Your task to perform on an android device: turn on wifi Image 0: 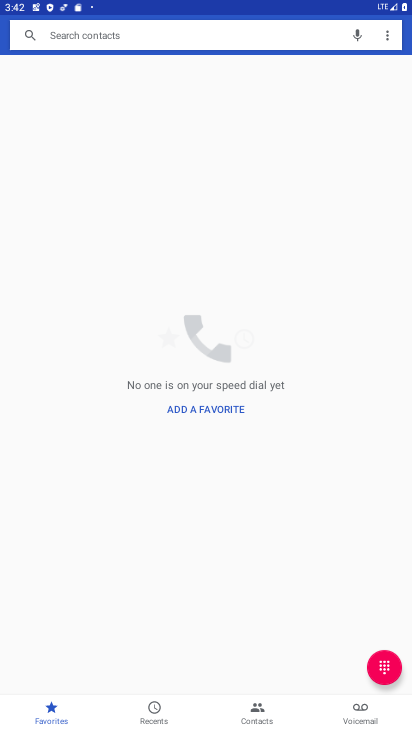
Step 0: press home button
Your task to perform on an android device: turn on wifi Image 1: 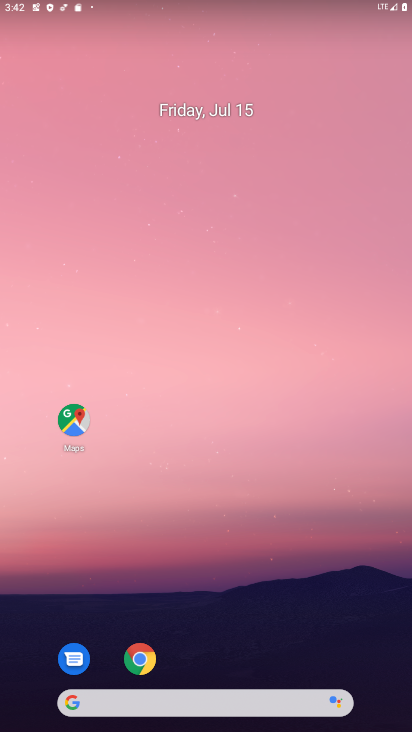
Step 1: drag from (186, 656) to (180, 97)
Your task to perform on an android device: turn on wifi Image 2: 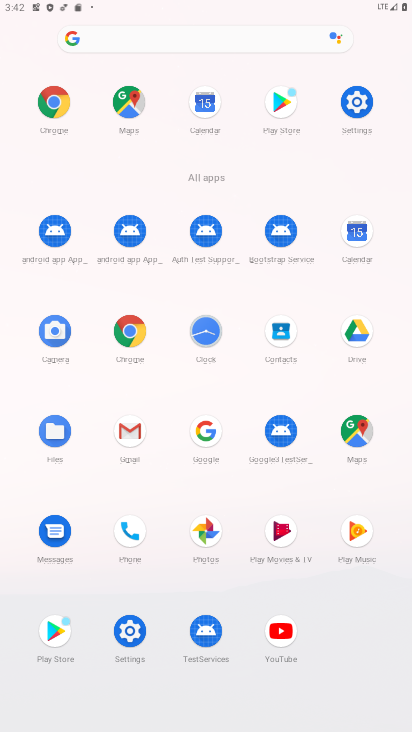
Step 2: click (368, 82)
Your task to perform on an android device: turn on wifi Image 3: 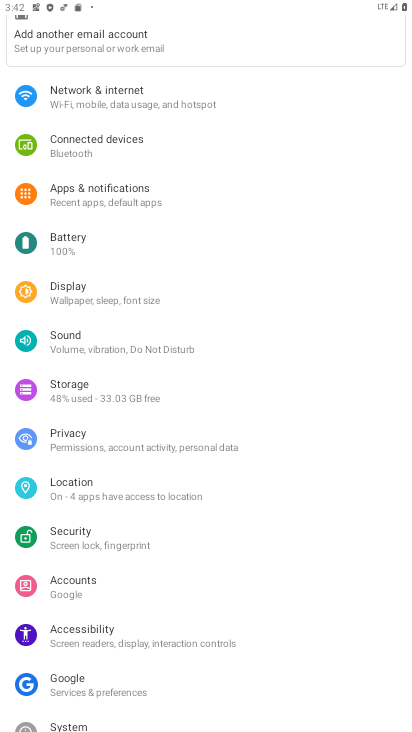
Step 3: click (145, 105)
Your task to perform on an android device: turn on wifi Image 4: 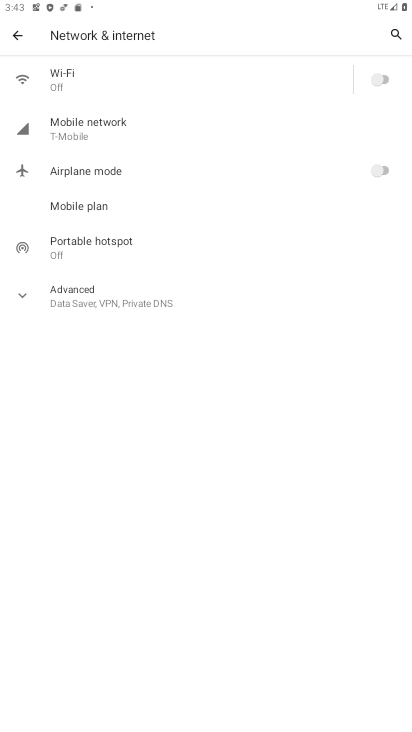
Step 4: click (127, 91)
Your task to perform on an android device: turn on wifi Image 5: 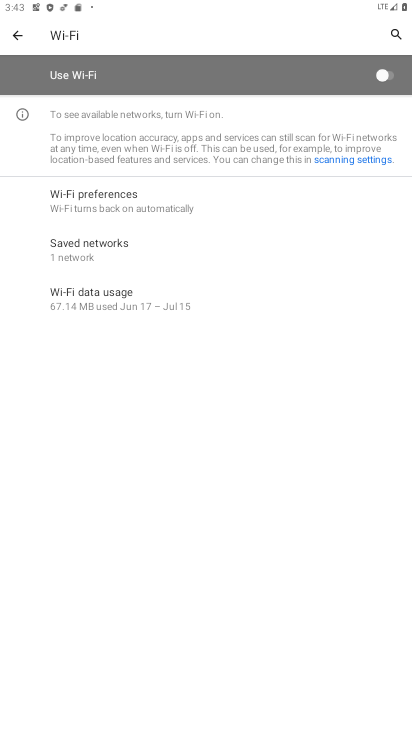
Step 5: click (395, 78)
Your task to perform on an android device: turn on wifi Image 6: 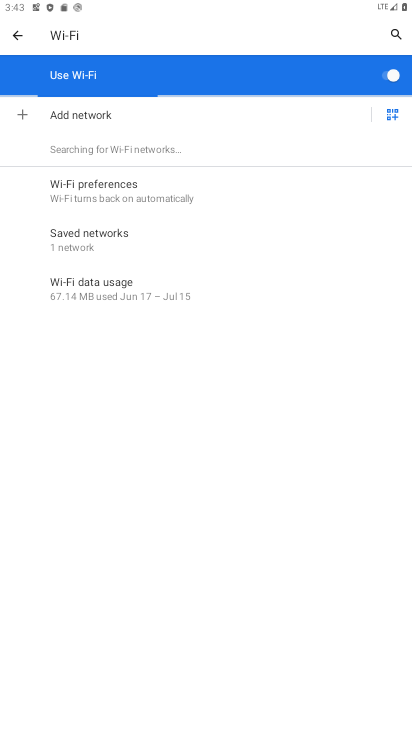
Step 6: task complete